Your task to perform on an android device: Search for seafood restaurants on Google Maps Image 0: 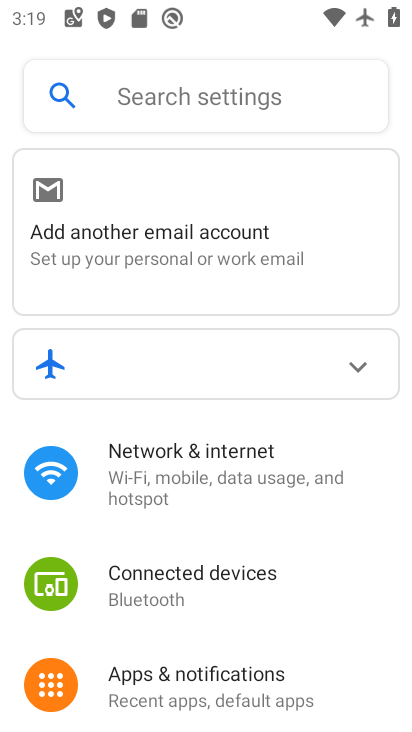
Step 0: press home button
Your task to perform on an android device: Search for seafood restaurants on Google Maps Image 1: 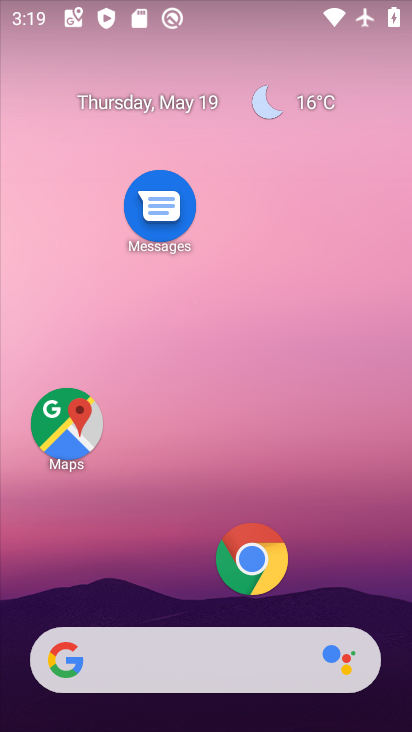
Step 1: click (61, 435)
Your task to perform on an android device: Search for seafood restaurants on Google Maps Image 2: 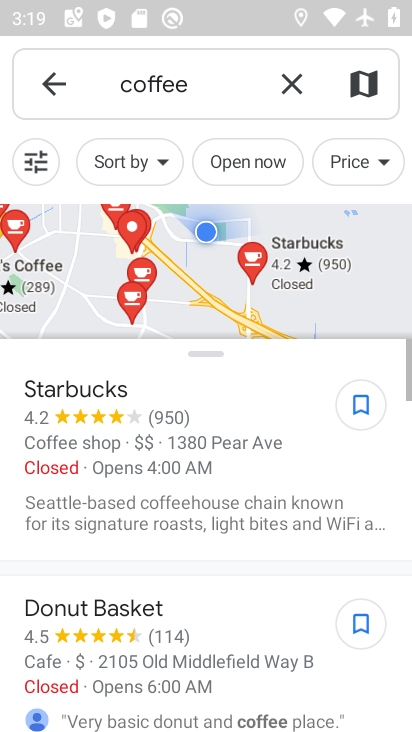
Step 2: click (283, 83)
Your task to perform on an android device: Search for seafood restaurants on Google Maps Image 3: 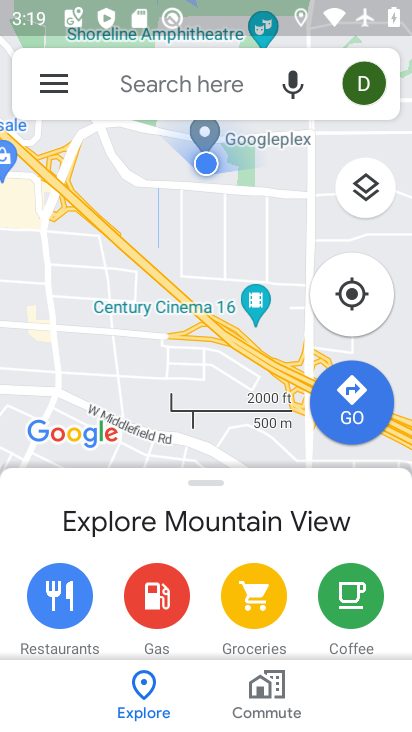
Step 3: click (218, 85)
Your task to perform on an android device: Search for seafood restaurants on Google Maps Image 4: 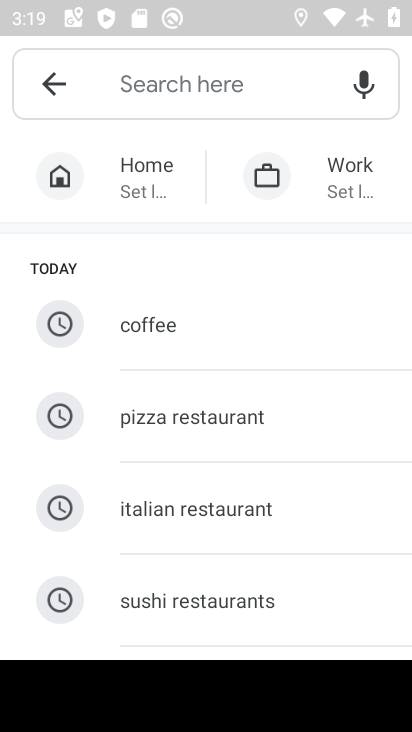
Step 4: type "seafood restaurants"
Your task to perform on an android device: Search for seafood restaurants on Google Maps Image 5: 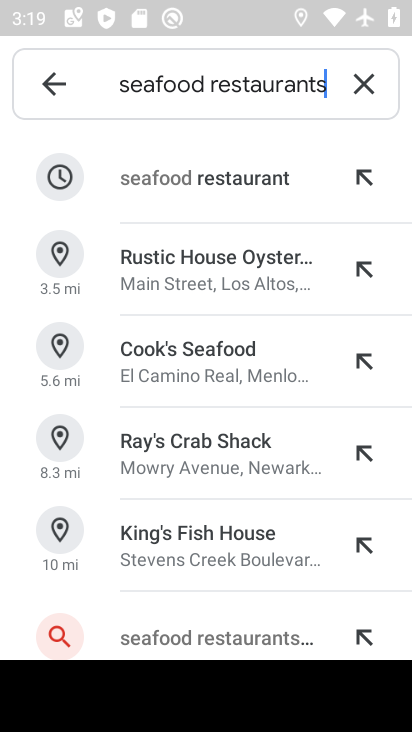
Step 5: click (199, 183)
Your task to perform on an android device: Search for seafood restaurants on Google Maps Image 6: 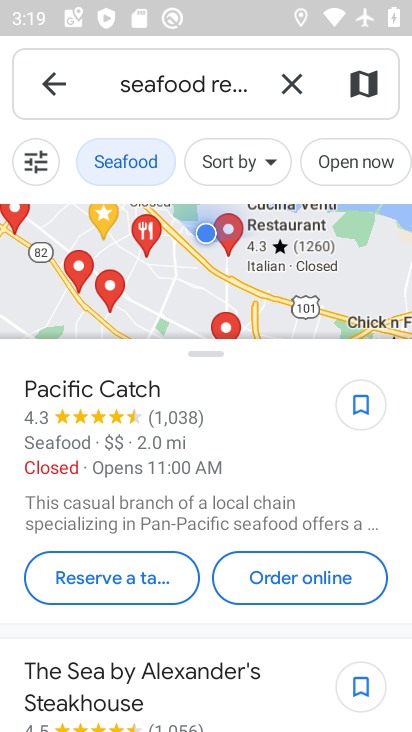
Step 6: task complete